Your task to perform on an android device: turn on showing notifications on the lock screen Image 0: 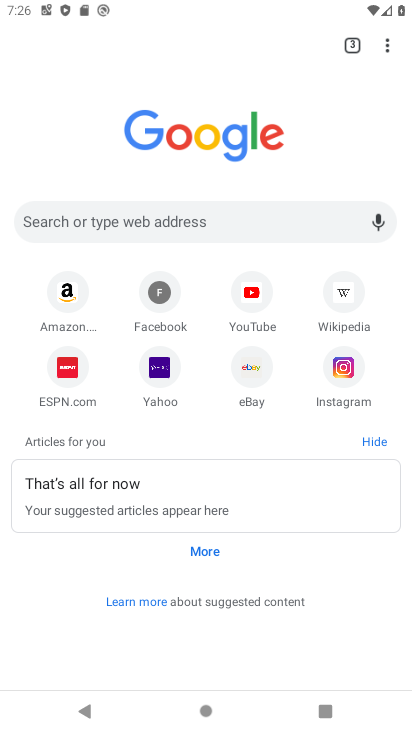
Step 0: press home button
Your task to perform on an android device: turn on showing notifications on the lock screen Image 1: 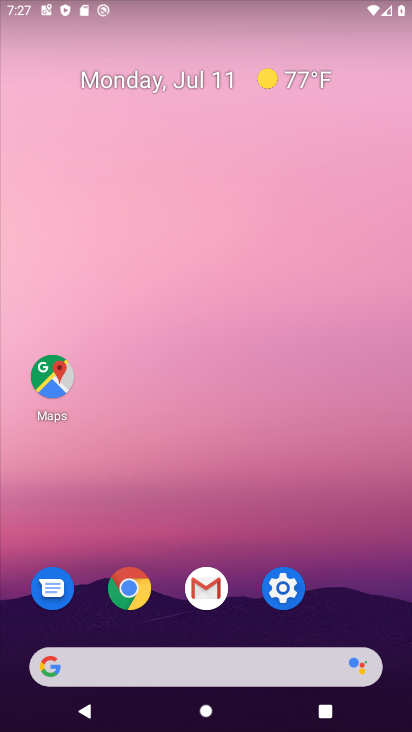
Step 1: drag from (264, 684) to (250, 129)
Your task to perform on an android device: turn on showing notifications on the lock screen Image 2: 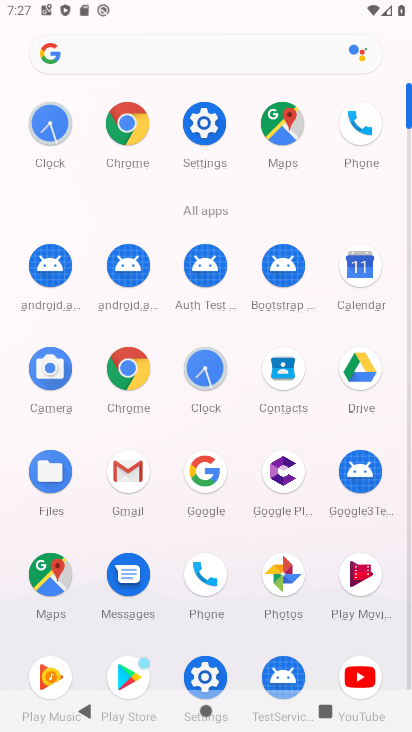
Step 2: click (192, 129)
Your task to perform on an android device: turn on showing notifications on the lock screen Image 3: 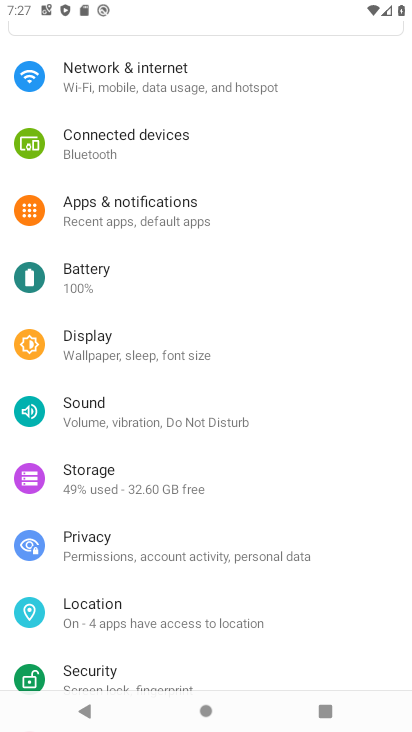
Step 3: drag from (137, 114) to (126, 218)
Your task to perform on an android device: turn on showing notifications on the lock screen Image 4: 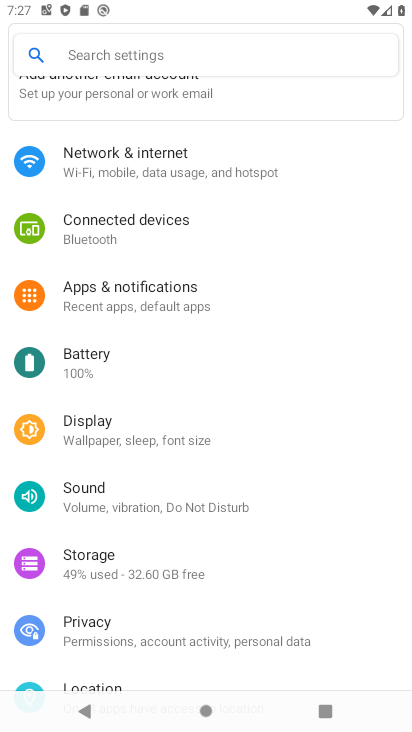
Step 4: click (134, 43)
Your task to perform on an android device: turn on showing notifications on the lock screen Image 5: 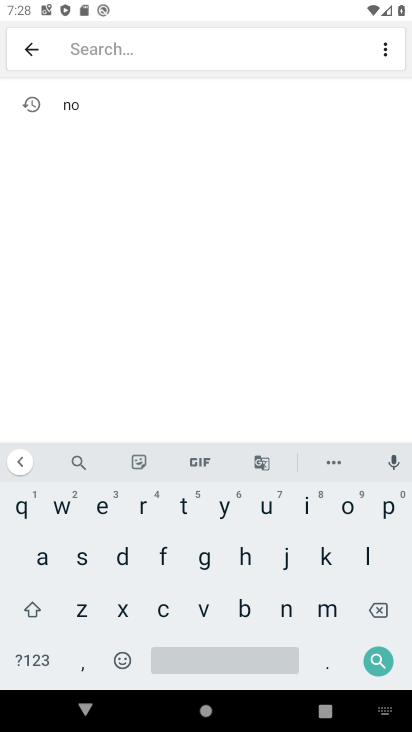
Step 5: click (282, 609)
Your task to perform on an android device: turn on showing notifications on the lock screen Image 6: 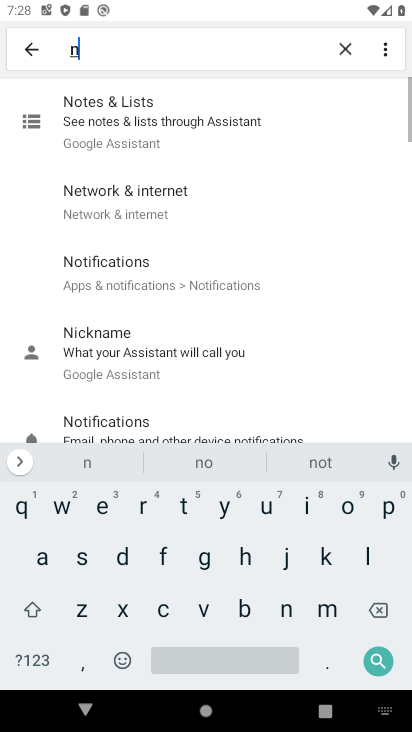
Step 6: click (342, 519)
Your task to perform on an android device: turn on showing notifications on the lock screen Image 7: 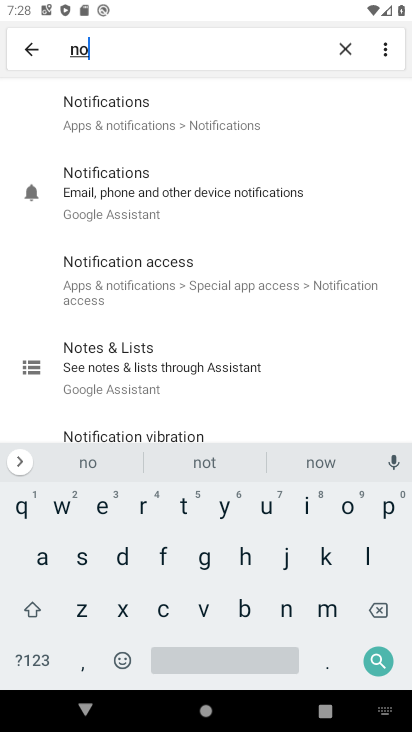
Step 7: click (126, 133)
Your task to perform on an android device: turn on showing notifications on the lock screen Image 8: 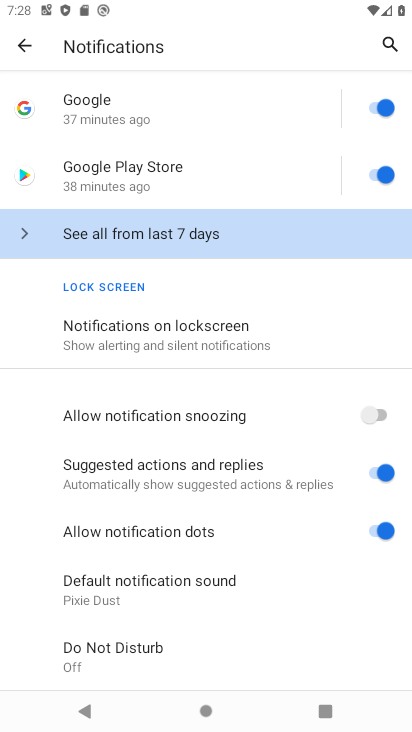
Step 8: click (148, 335)
Your task to perform on an android device: turn on showing notifications on the lock screen Image 9: 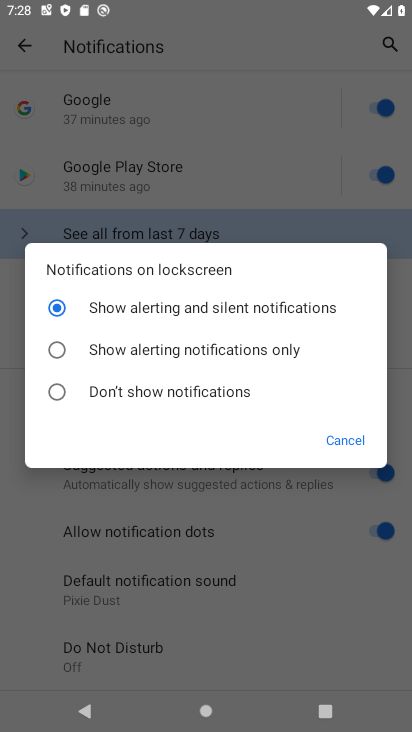
Step 9: task complete